Your task to perform on an android device: Open display settings Image 0: 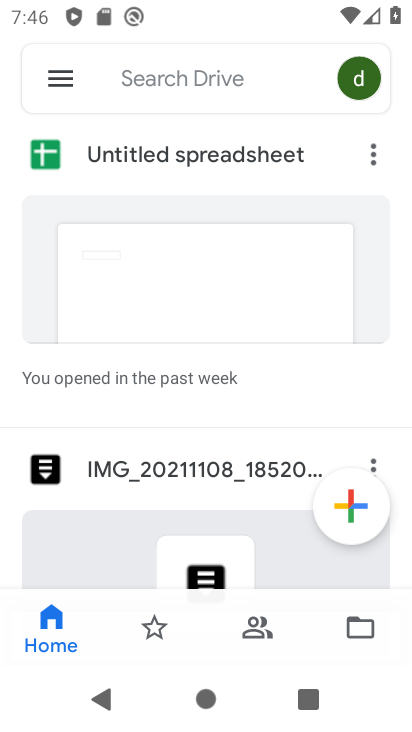
Step 0: press home button
Your task to perform on an android device: Open display settings Image 1: 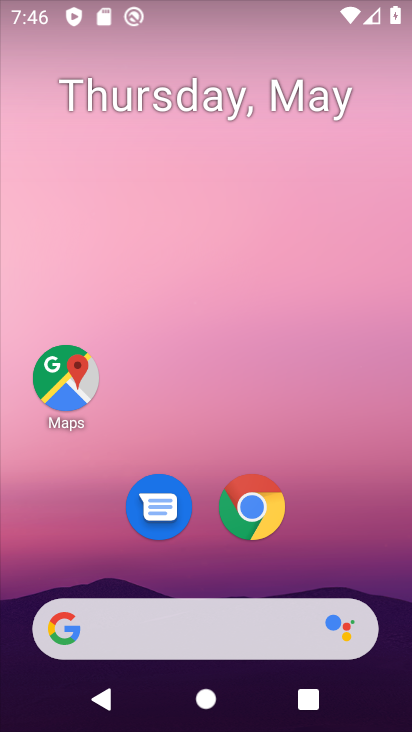
Step 1: drag from (379, 553) to (278, 95)
Your task to perform on an android device: Open display settings Image 2: 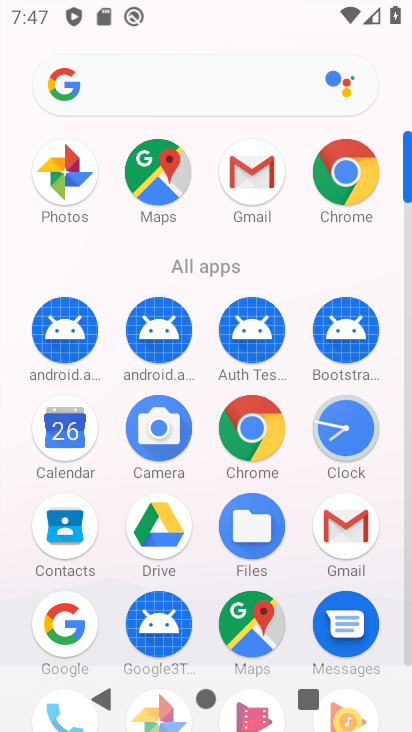
Step 2: click (408, 654)
Your task to perform on an android device: Open display settings Image 3: 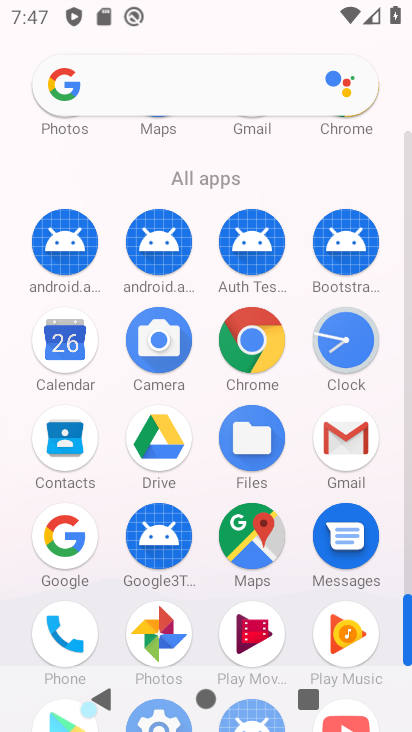
Step 3: drag from (387, 591) to (372, 438)
Your task to perform on an android device: Open display settings Image 4: 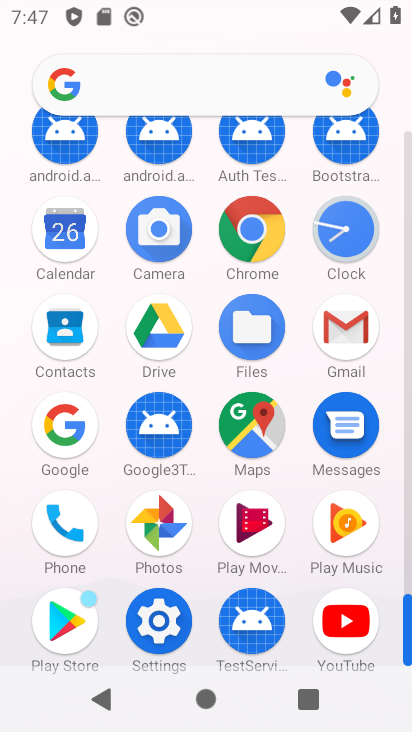
Step 4: click (173, 615)
Your task to perform on an android device: Open display settings Image 5: 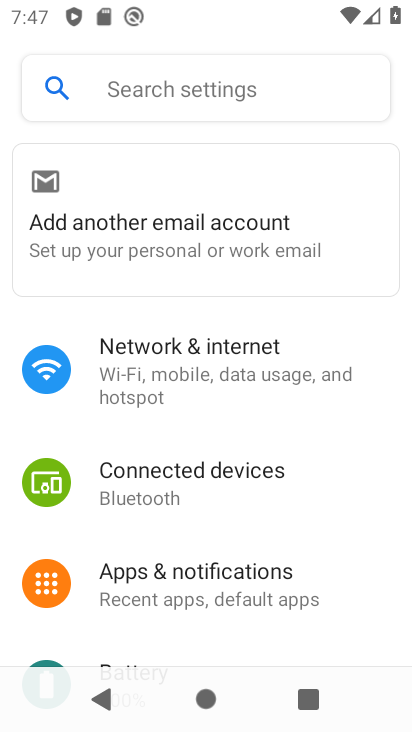
Step 5: drag from (184, 635) to (168, 384)
Your task to perform on an android device: Open display settings Image 6: 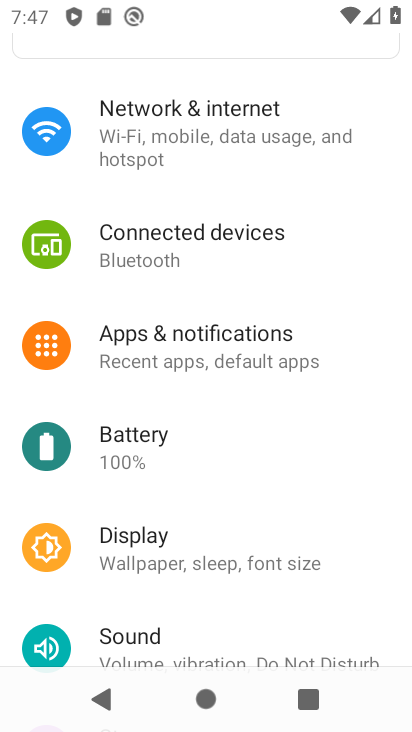
Step 6: click (220, 555)
Your task to perform on an android device: Open display settings Image 7: 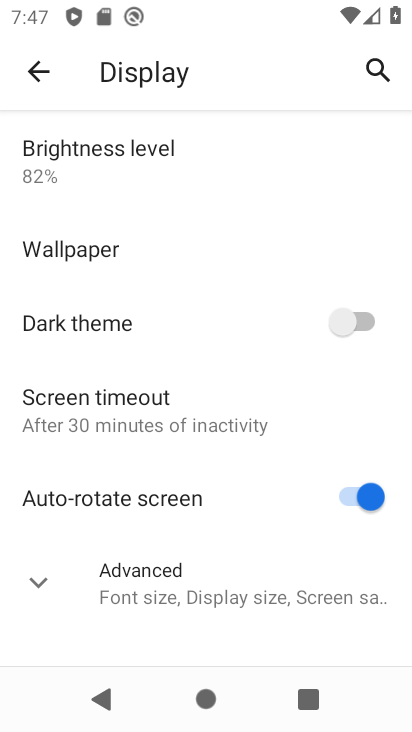
Step 7: task complete